Your task to perform on an android device: Go to wifi settings Image 0: 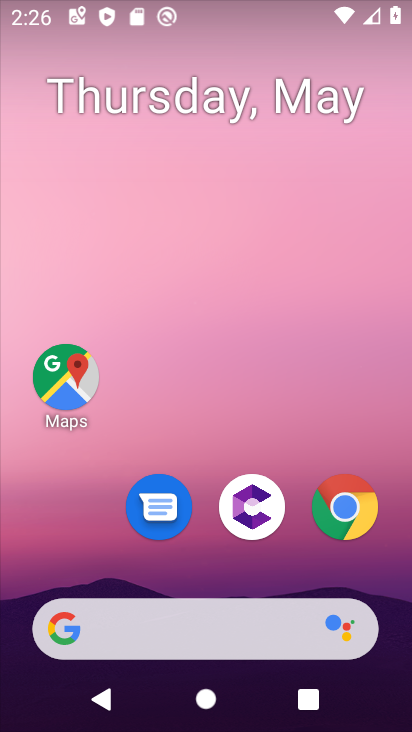
Step 0: press home button
Your task to perform on an android device: Go to wifi settings Image 1: 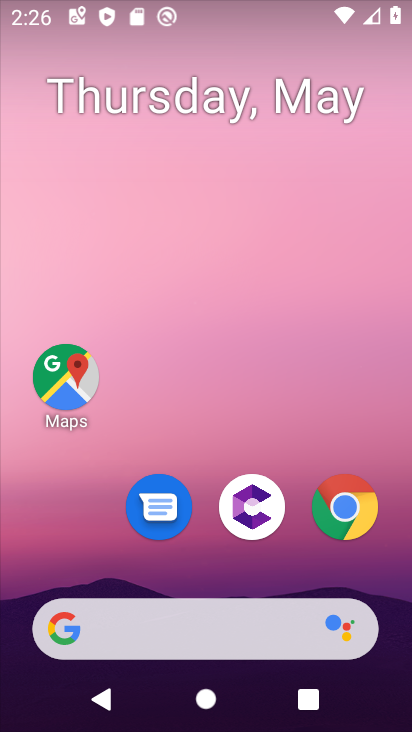
Step 1: drag from (225, 560) to (211, 18)
Your task to perform on an android device: Go to wifi settings Image 2: 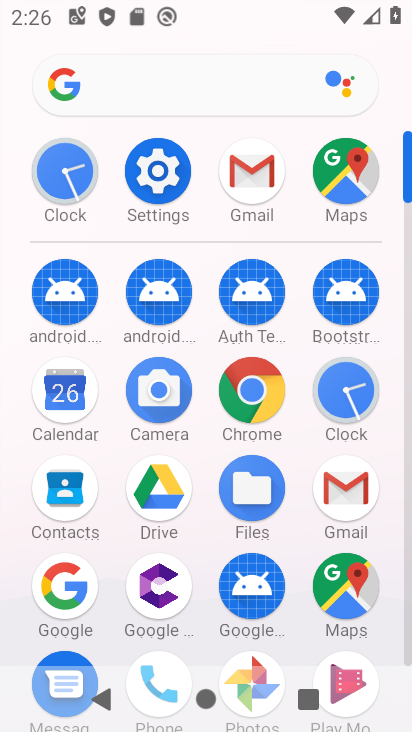
Step 2: click (177, 185)
Your task to perform on an android device: Go to wifi settings Image 3: 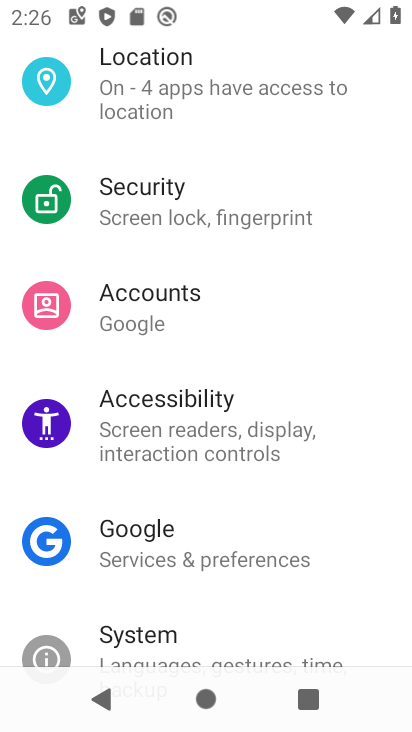
Step 3: drag from (270, 176) to (246, 687)
Your task to perform on an android device: Go to wifi settings Image 4: 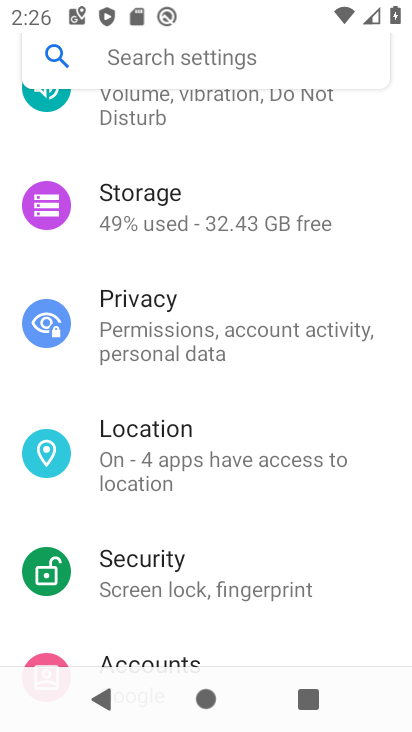
Step 4: drag from (205, 262) to (395, 632)
Your task to perform on an android device: Go to wifi settings Image 5: 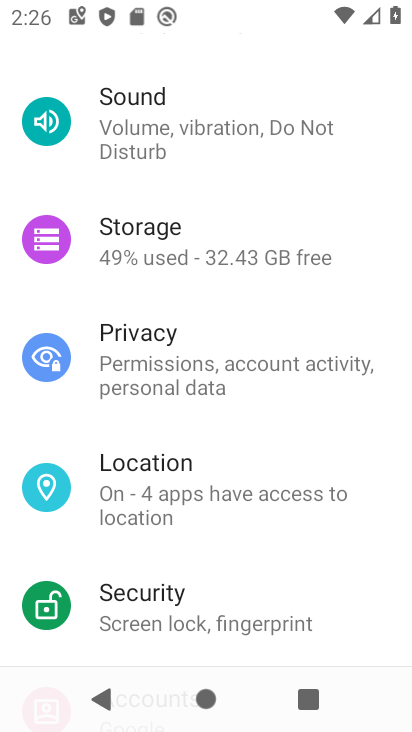
Step 5: drag from (219, 83) to (267, 702)
Your task to perform on an android device: Go to wifi settings Image 6: 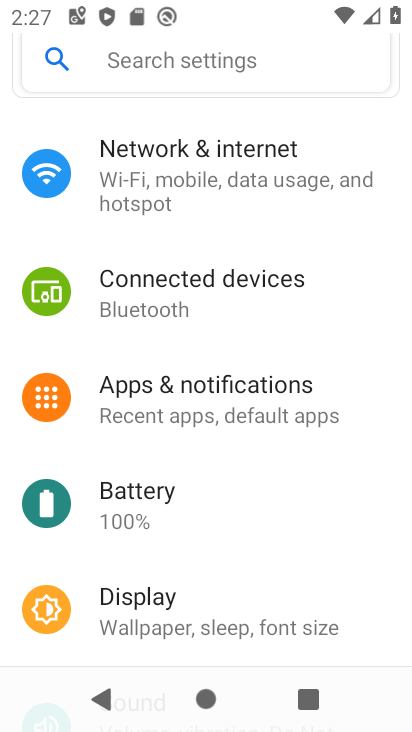
Step 6: click (197, 189)
Your task to perform on an android device: Go to wifi settings Image 7: 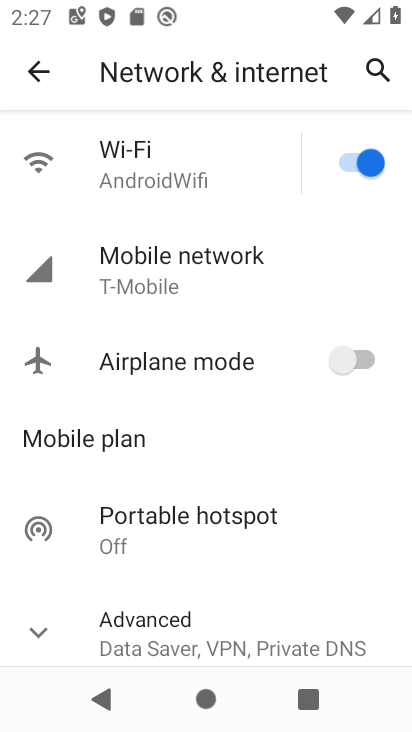
Step 7: click (129, 156)
Your task to perform on an android device: Go to wifi settings Image 8: 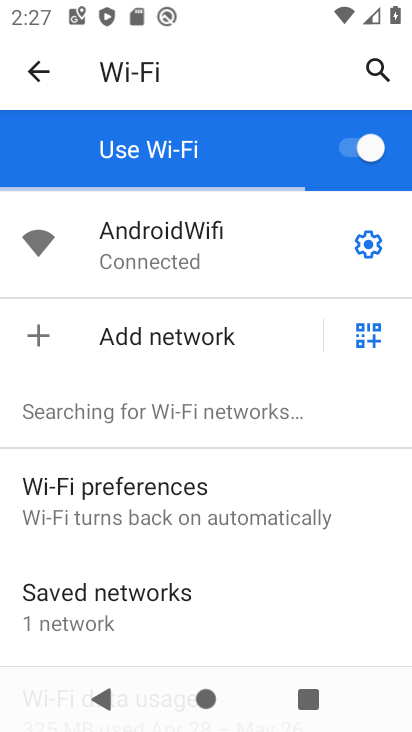
Step 8: task complete